Your task to perform on an android device: What's on my calendar tomorrow? Image 0: 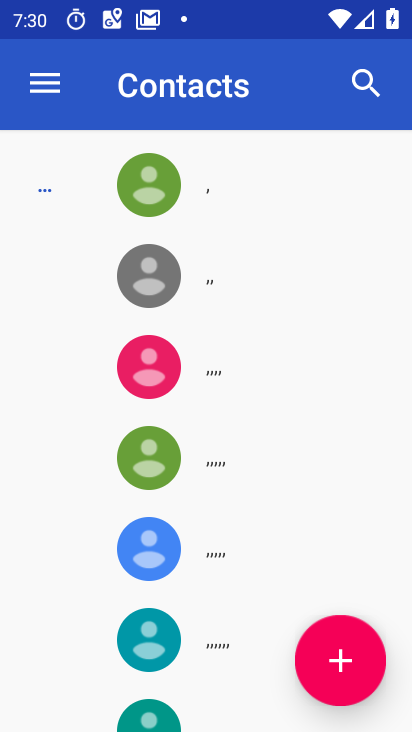
Step 0: press home button
Your task to perform on an android device: What's on my calendar tomorrow? Image 1: 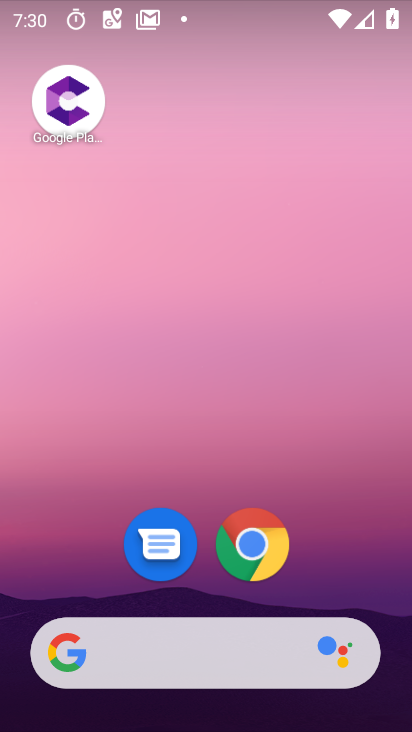
Step 1: drag from (356, 535) to (366, 4)
Your task to perform on an android device: What's on my calendar tomorrow? Image 2: 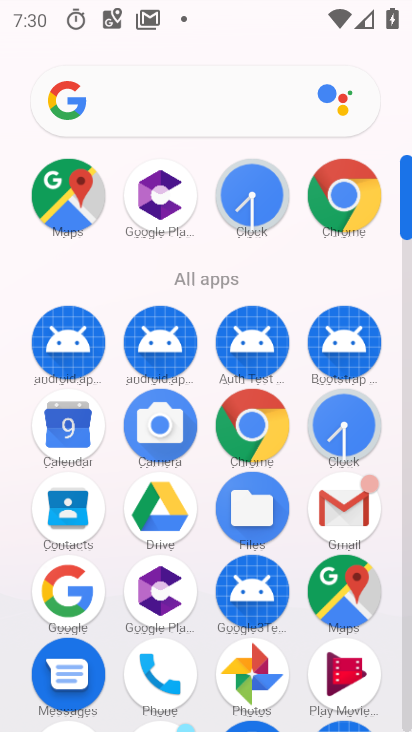
Step 2: click (73, 460)
Your task to perform on an android device: What's on my calendar tomorrow? Image 3: 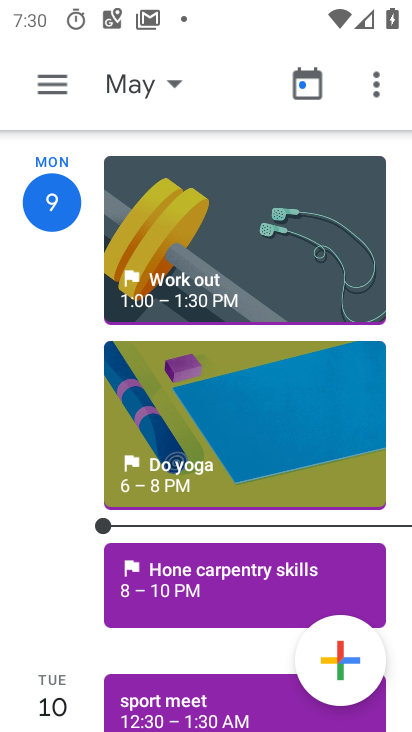
Step 3: click (129, 94)
Your task to perform on an android device: What's on my calendar tomorrow? Image 4: 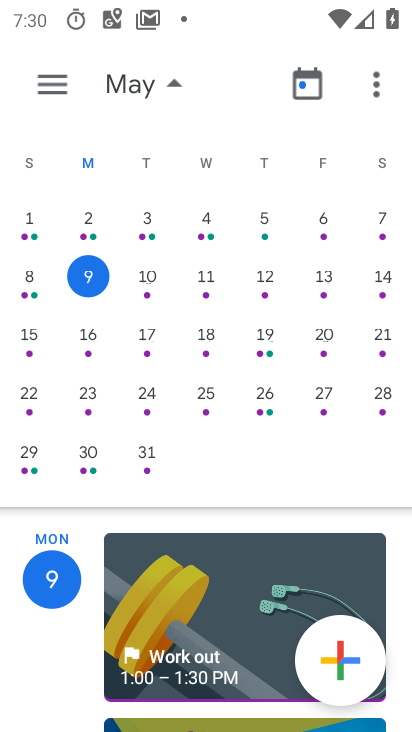
Step 4: click (155, 280)
Your task to perform on an android device: What's on my calendar tomorrow? Image 5: 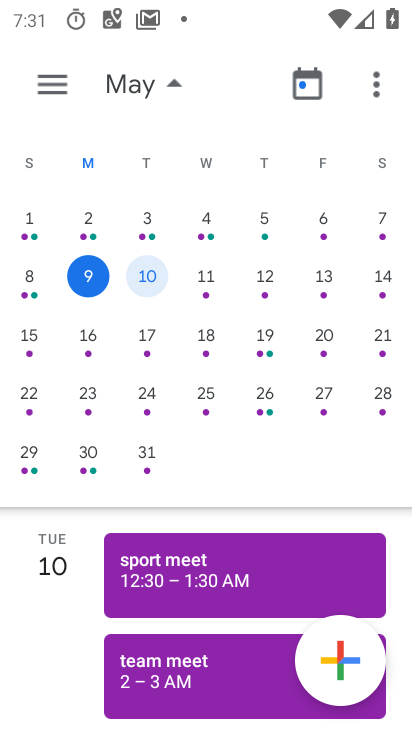
Step 5: click (155, 280)
Your task to perform on an android device: What's on my calendar tomorrow? Image 6: 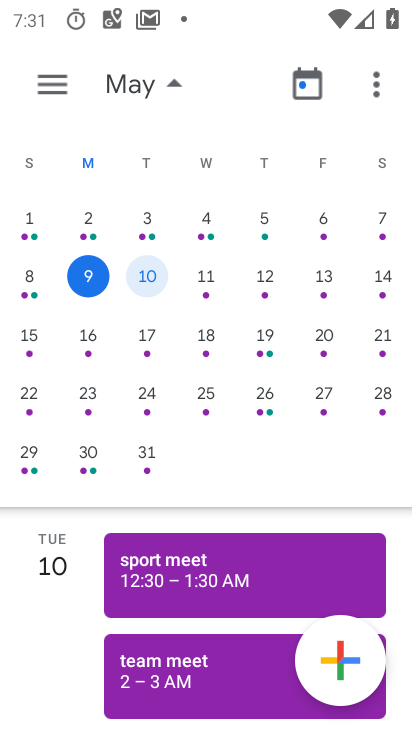
Step 6: task complete